Your task to perform on an android device: delete a single message in the gmail app Image 0: 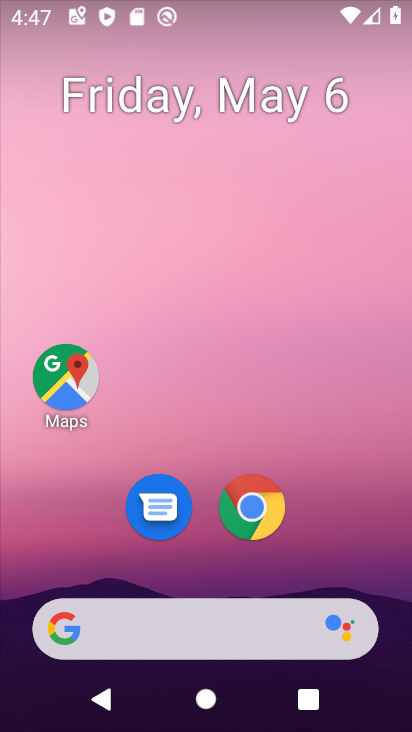
Step 0: drag from (331, 539) to (357, 29)
Your task to perform on an android device: delete a single message in the gmail app Image 1: 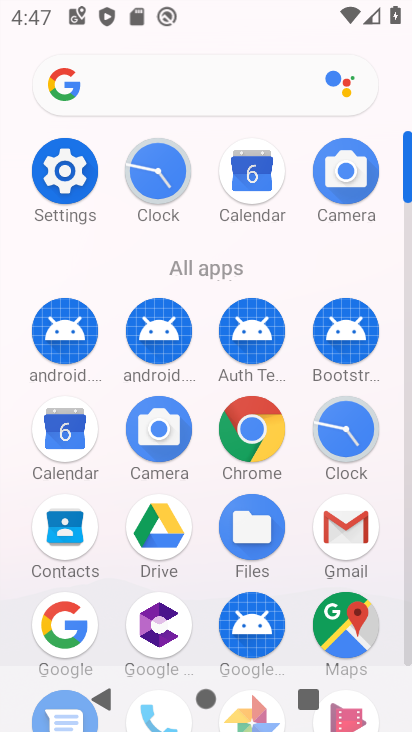
Step 1: click (347, 524)
Your task to perform on an android device: delete a single message in the gmail app Image 2: 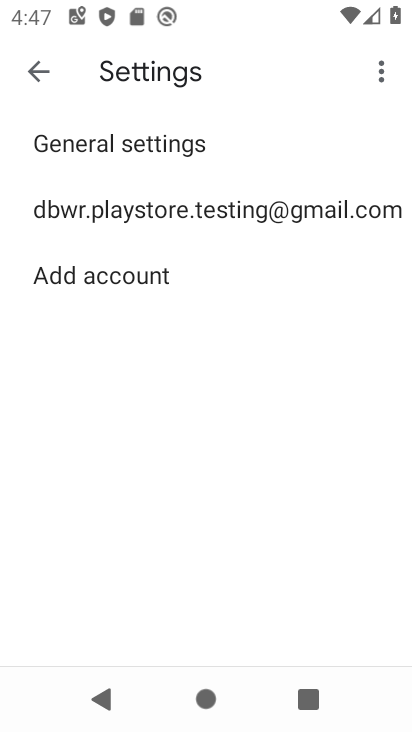
Step 2: click (37, 71)
Your task to perform on an android device: delete a single message in the gmail app Image 3: 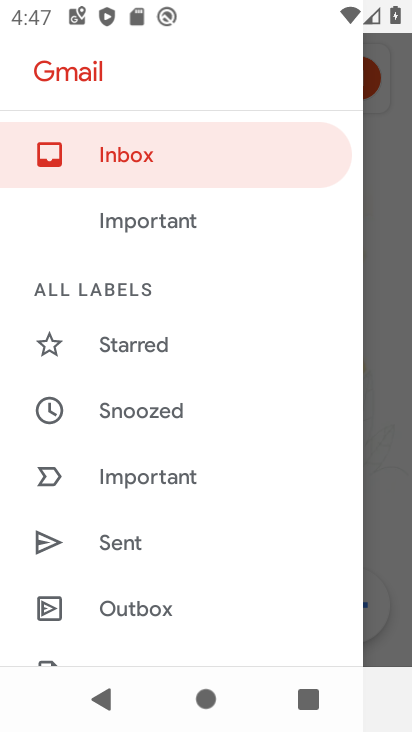
Step 3: drag from (181, 537) to (157, 175)
Your task to perform on an android device: delete a single message in the gmail app Image 4: 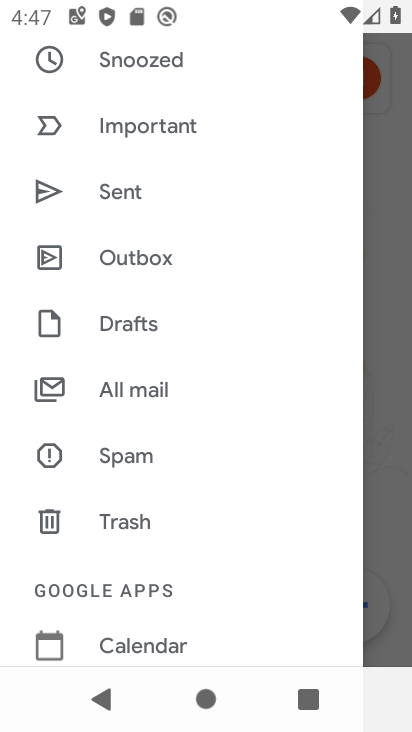
Step 4: click (135, 389)
Your task to perform on an android device: delete a single message in the gmail app Image 5: 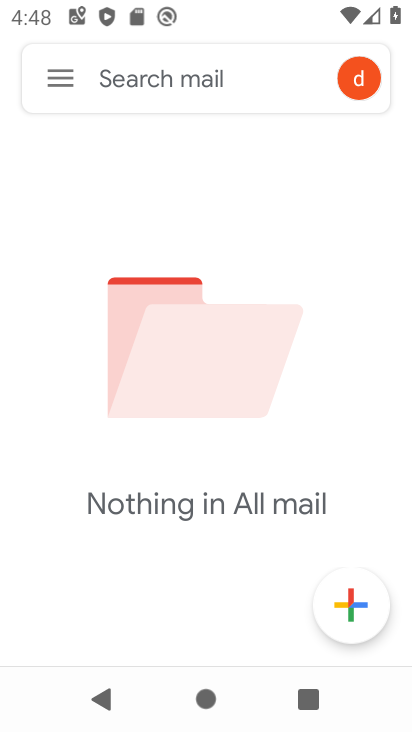
Step 5: task complete